Your task to perform on an android device: toggle show notifications on the lock screen Image 0: 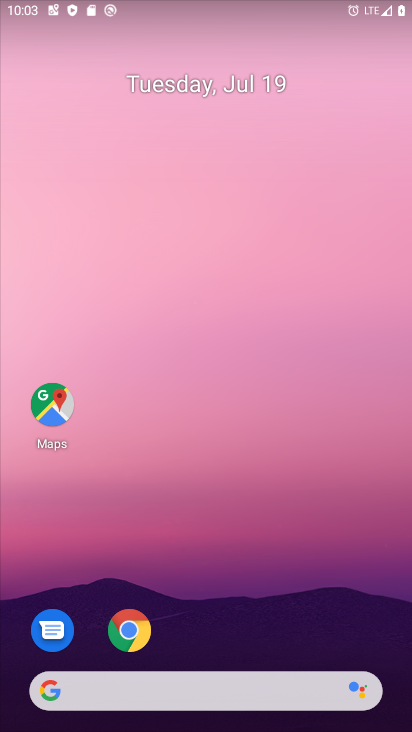
Step 0: drag from (178, 650) to (193, 115)
Your task to perform on an android device: toggle show notifications on the lock screen Image 1: 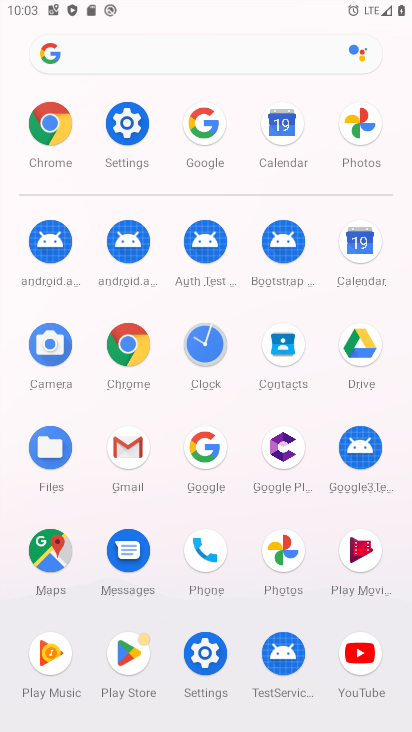
Step 1: click (123, 112)
Your task to perform on an android device: toggle show notifications on the lock screen Image 2: 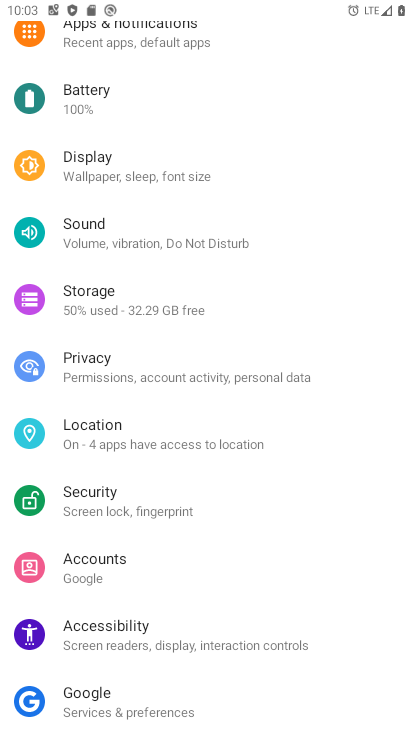
Step 2: click (131, 38)
Your task to perform on an android device: toggle show notifications on the lock screen Image 3: 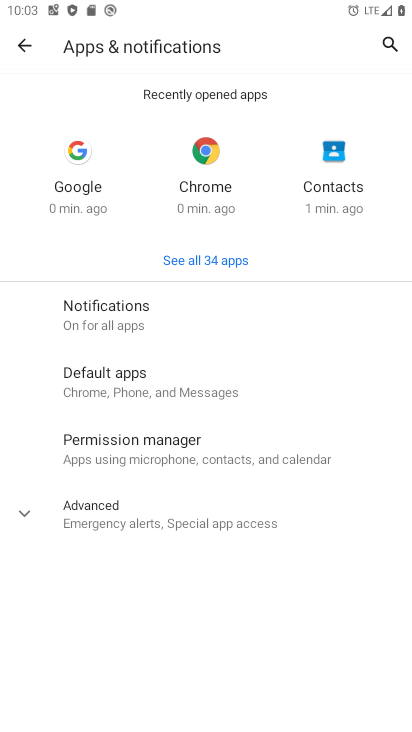
Step 3: click (106, 323)
Your task to perform on an android device: toggle show notifications on the lock screen Image 4: 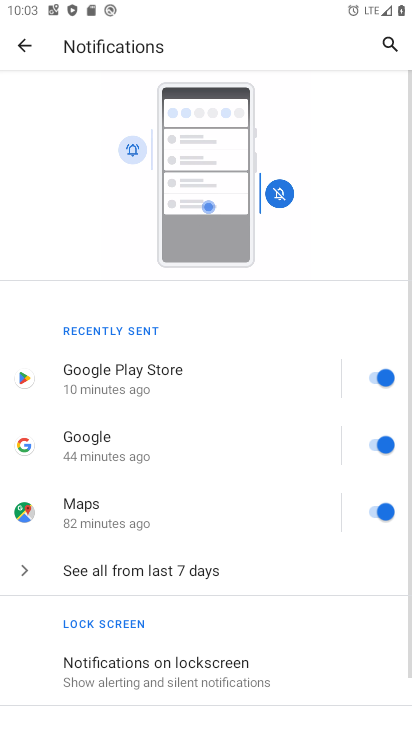
Step 4: click (151, 667)
Your task to perform on an android device: toggle show notifications on the lock screen Image 5: 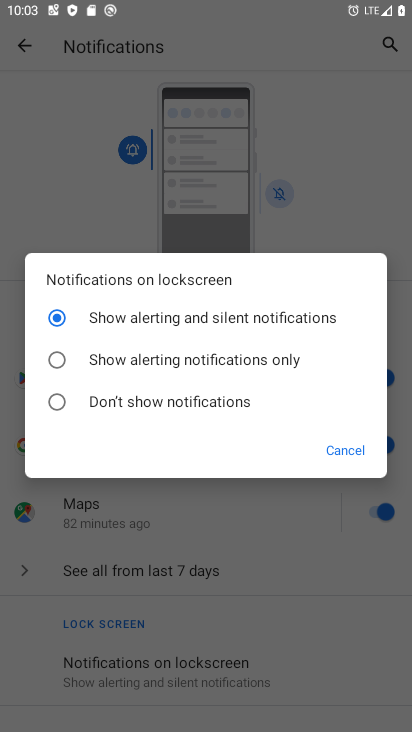
Step 5: click (59, 406)
Your task to perform on an android device: toggle show notifications on the lock screen Image 6: 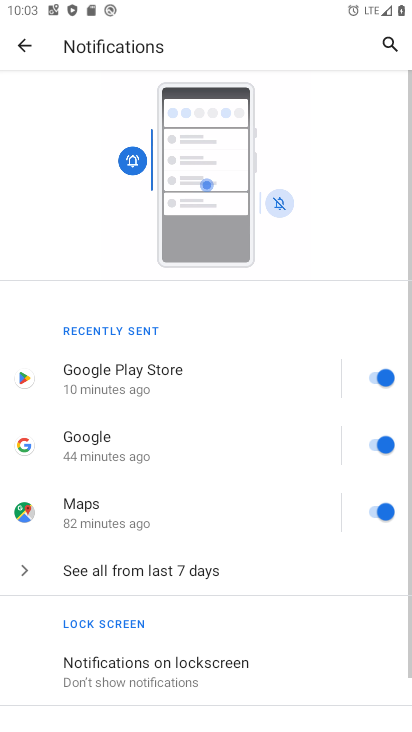
Step 6: task complete